Your task to perform on an android device: open app "TextNow: Call + Text Unlimited" (install if not already installed) Image 0: 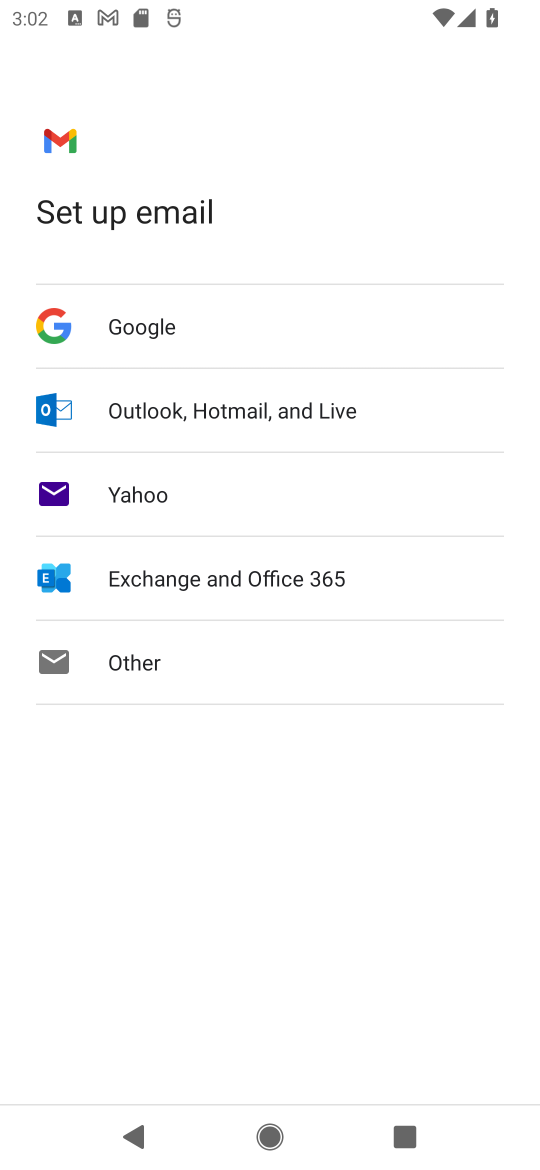
Step 0: press home button
Your task to perform on an android device: open app "TextNow: Call + Text Unlimited" (install if not already installed) Image 1: 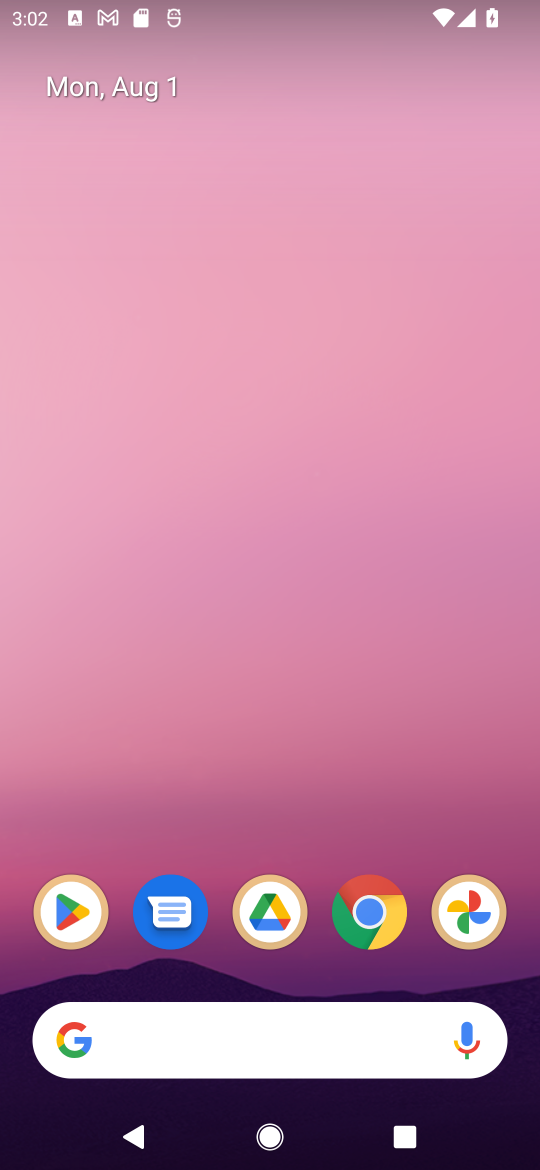
Step 1: click (67, 925)
Your task to perform on an android device: open app "TextNow: Call + Text Unlimited" (install if not already installed) Image 2: 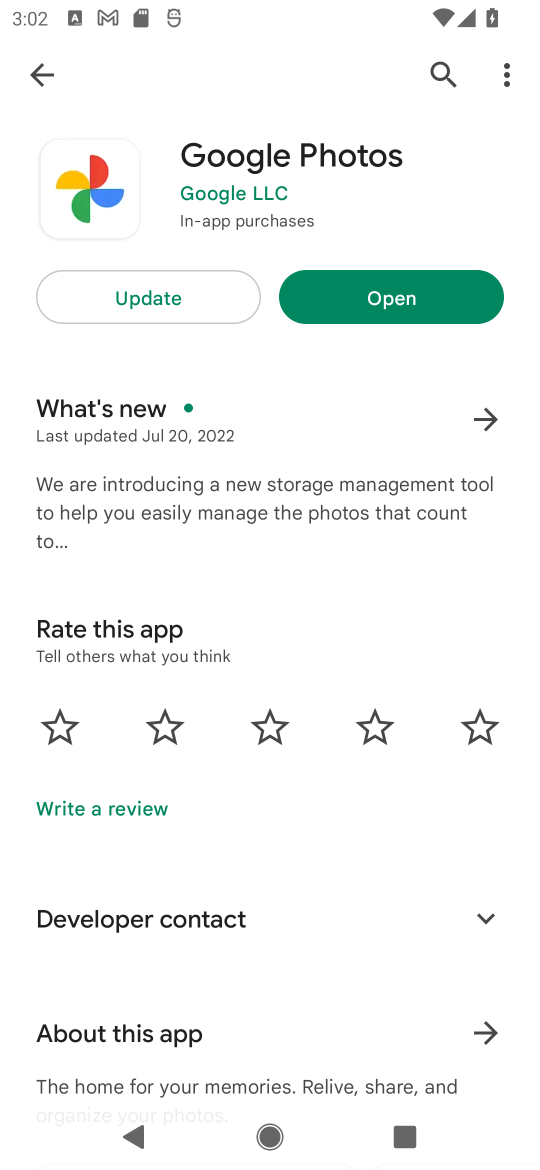
Step 2: click (436, 78)
Your task to perform on an android device: open app "TextNow: Call + Text Unlimited" (install if not already installed) Image 3: 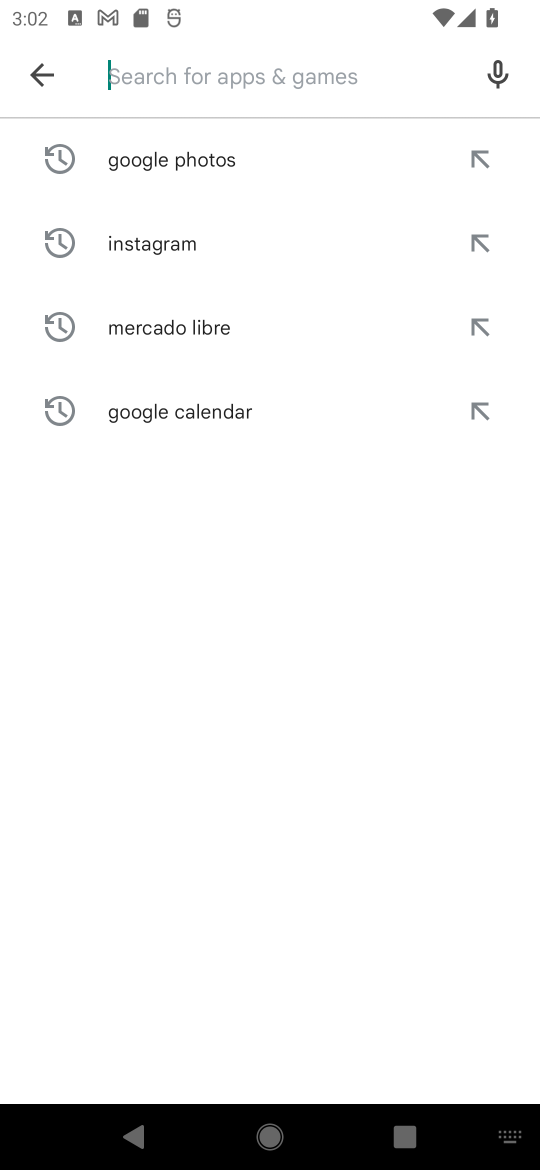
Step 3: click (322, 87)
Your task to perform on an android device: open app "TextNow: Call + Text Unlimited" (install if not already installed) Image 4: 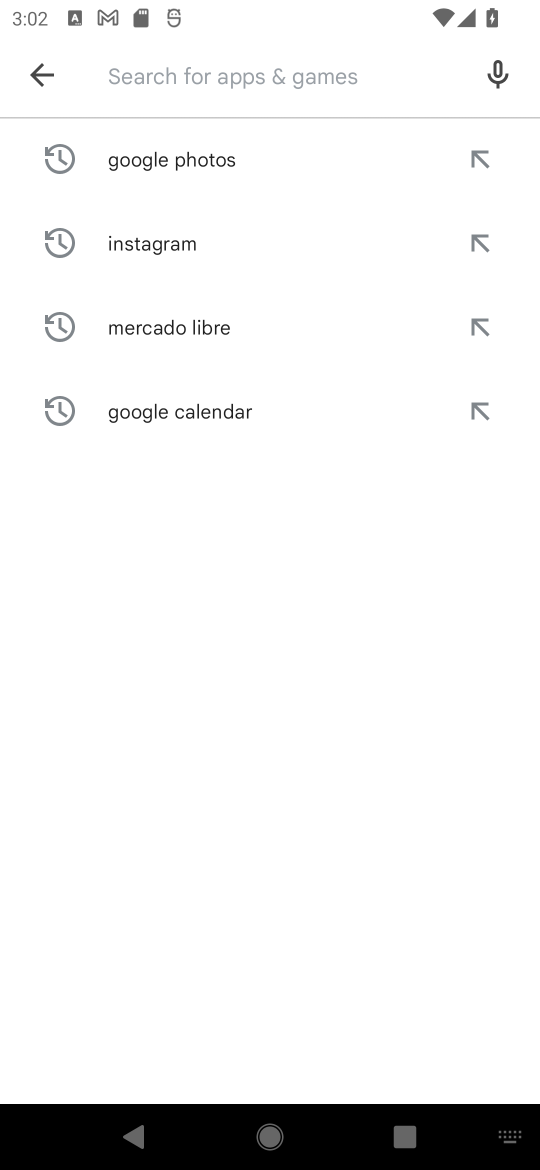
Step 4: type "TextNow: Call + Text Unlimited"
Your task to perform on an android device: open app "TextNow: Call + Text Unlimited" (install if not already installed) Image 5: 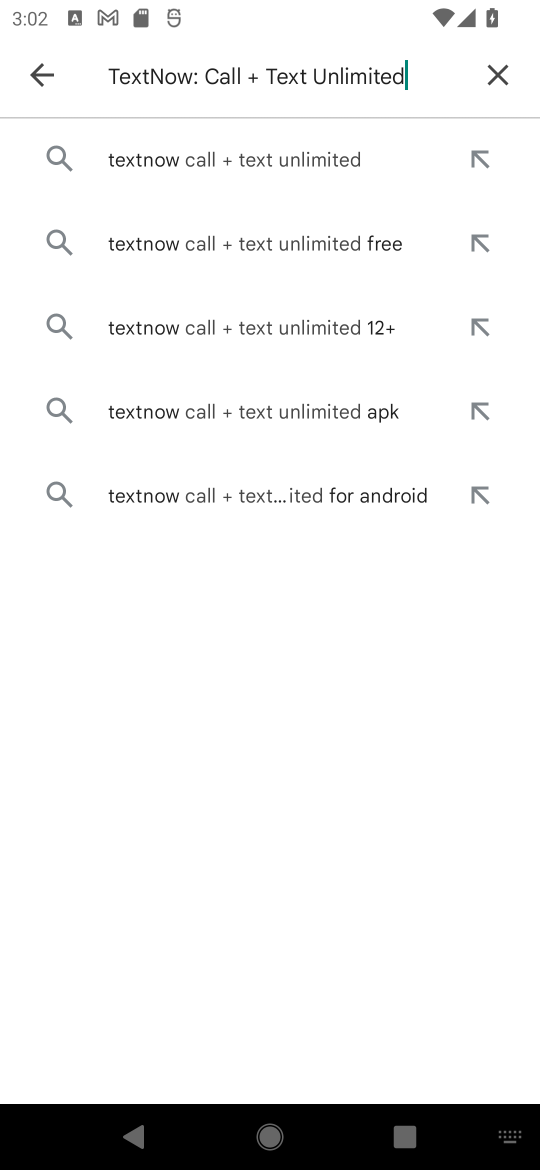
Step 5: click (237, 170)
Your task to perform on an android device: open app "TextNow: Call + Text Unlimited" (install if not already installed) Image 6: 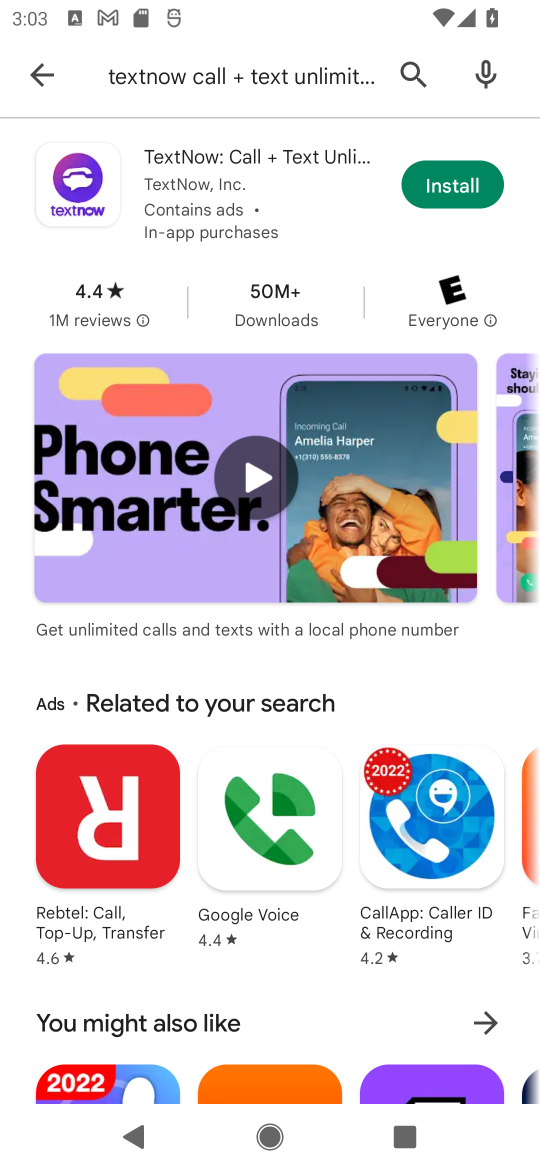
Step 6: click (479, 188)
Your task to perform on an android device: open app "TextNow: Call + Text Unlimited" (install if not already installed) Image 7: 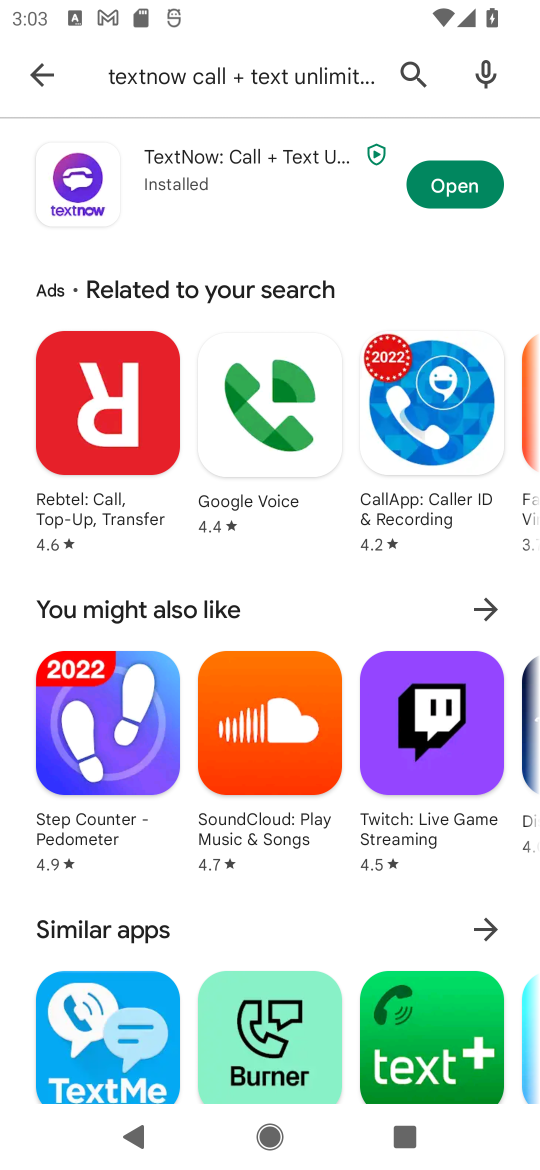
Step 7: click (479, 188)
Your task to perform on an android device: open app "TextNow: Call + Text Unlimited" (install if not already installed) Image 8: 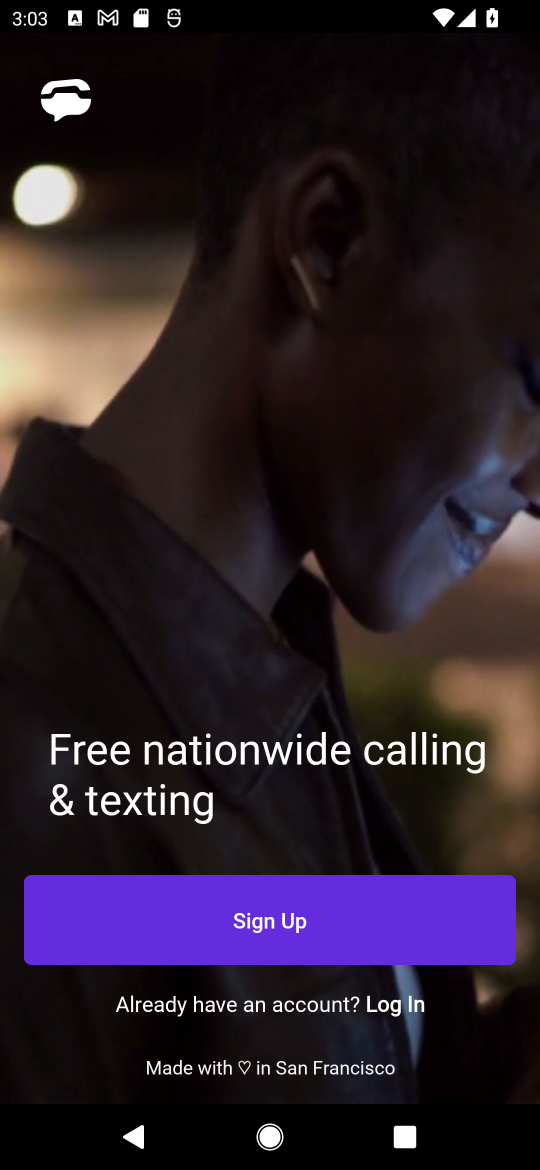
Step 8: task complete